Your task to perform on an android device: Open Chrome and go to settings Image 0: 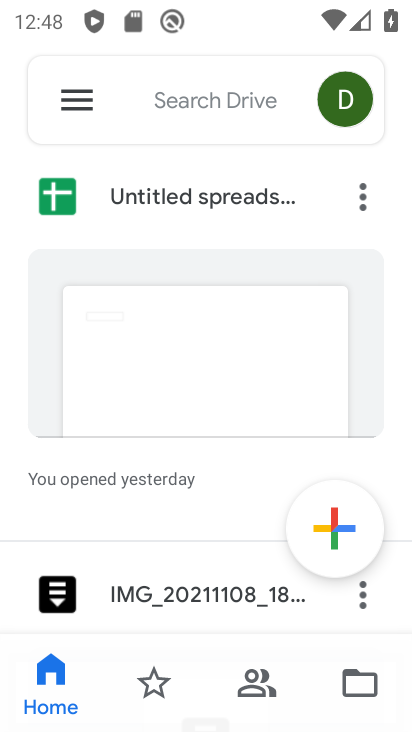
Step 0: press home button
Your task to perform on an android device: Open Chrome and go to settings Image 1: 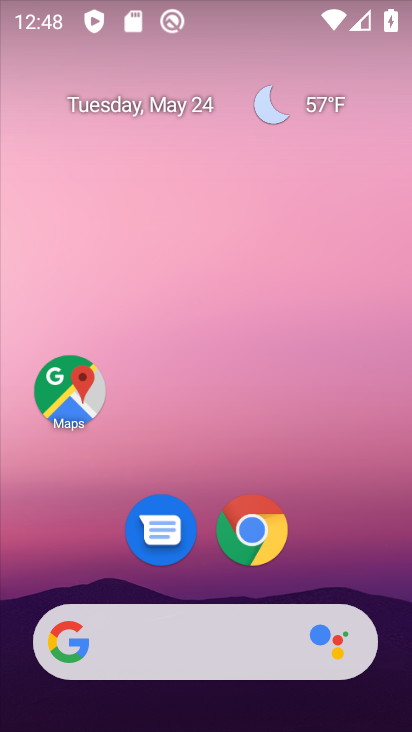
Step 1: click (251, 530)
Your task to perform on an android device: Open Chrome and go to settings Image 2: 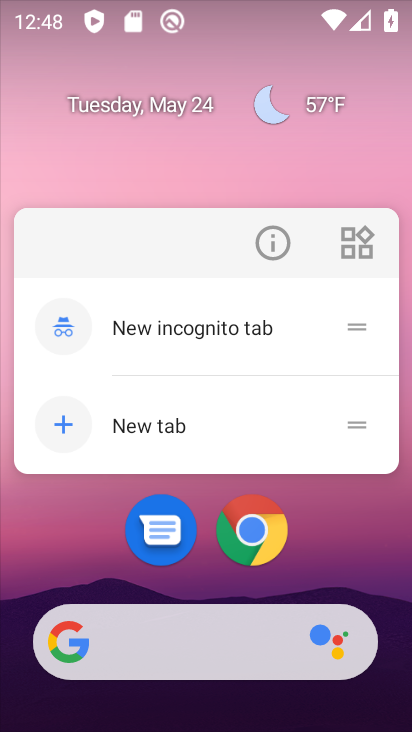
Step 2: click (252, 531)
Your task to perform on an android device: Open Chrome and go to settings Image 3: 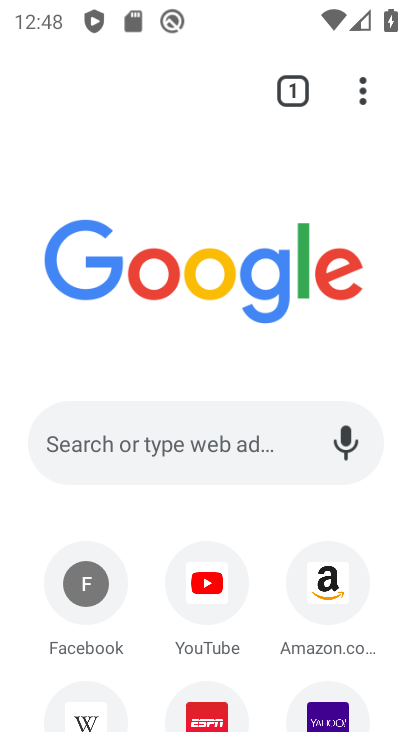
Step 3: click (355, 93)
Your task to perform on an android device: Open Chrome and go to settings Image 4: 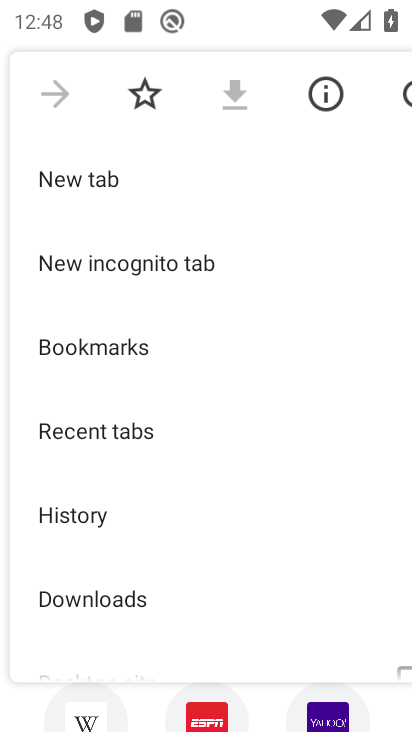
Step 4: drag from (140, 586) to (120, 294)
Your task to perform on an android device: Open Chrome and go to settings Image 5: 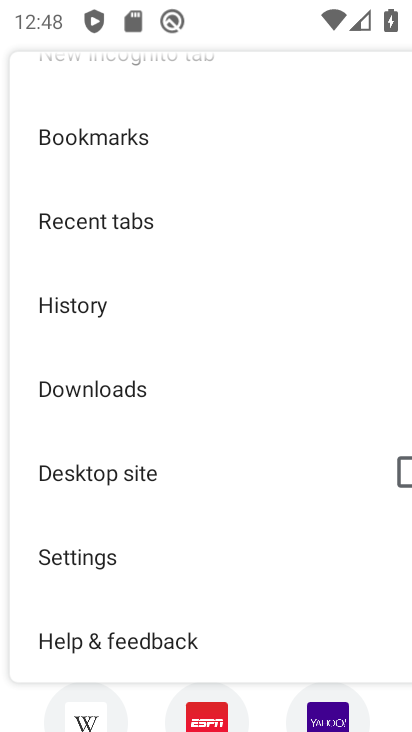
Step 5: drag from (115, 584) to (139, 293)
Your task to perform on an android device: Open Chrome and go to settings Image 6: 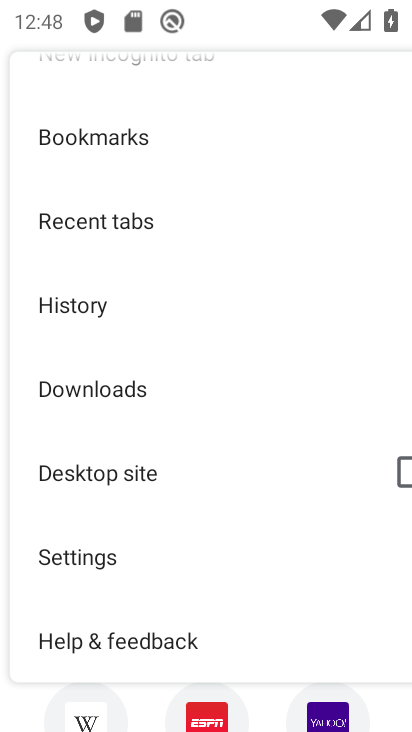
Step 6: click (60, 556)
Your task to perform on an android device: Open Chrome and go to settings Image 7: 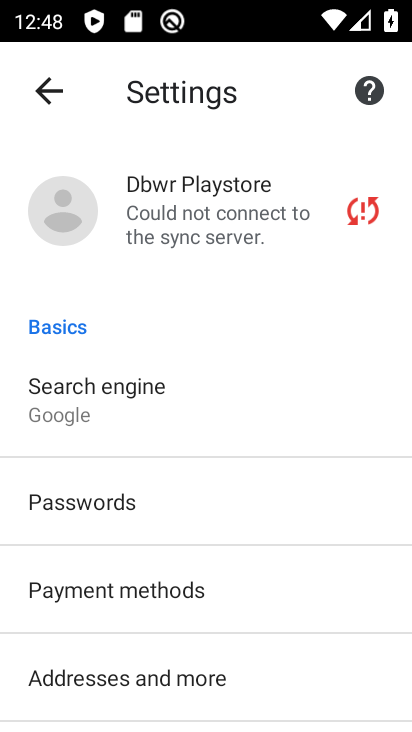
Step 7: task complete